Your task to perform on an android device: turn off improve location accuracy Image 0: 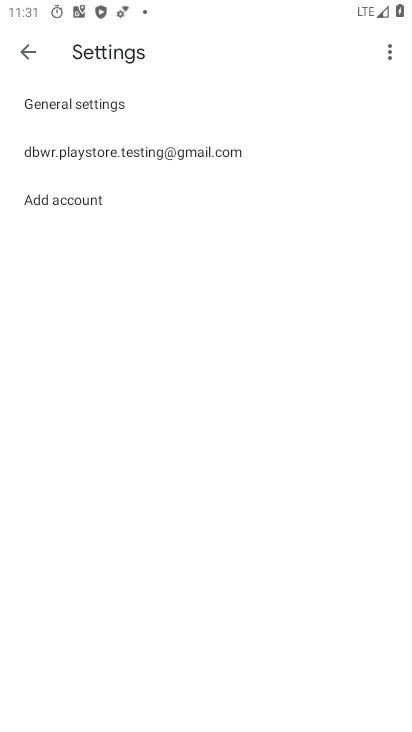
Step 0: press home button
Your task to perform on an android device: turn off improve location accuracy Image 1: 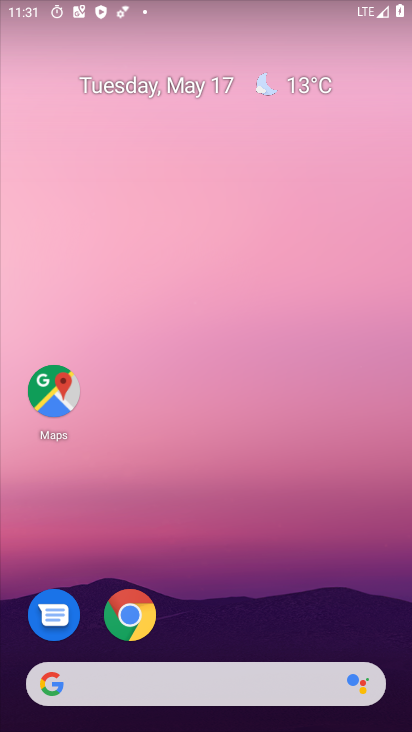
Step 1: drag from (148, 693) to (271, 131)
Your task to perform on an android device: turn off improve location accuracy Image 2: 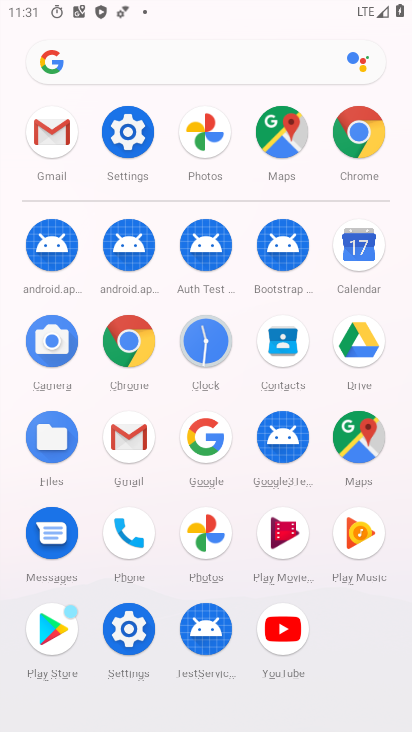
Step 2: click (124, 140)
Your task to perform on an android device: turn off improve location accuracy Image 3: 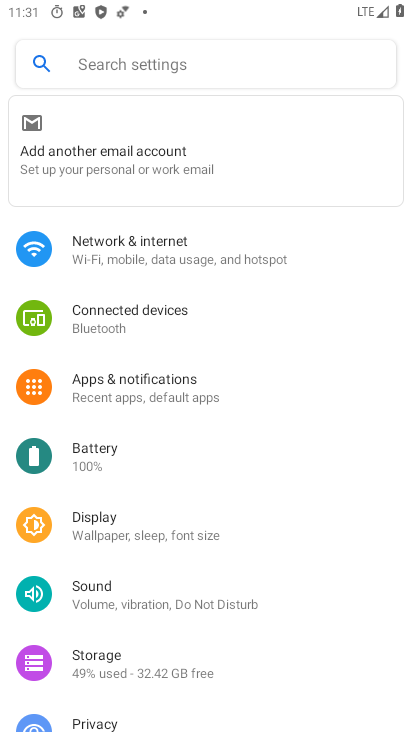
Step 3: drag from (276, 526) to (370, 196)
Your task to perform on an android device: turn off improve location accuracy Image 4: 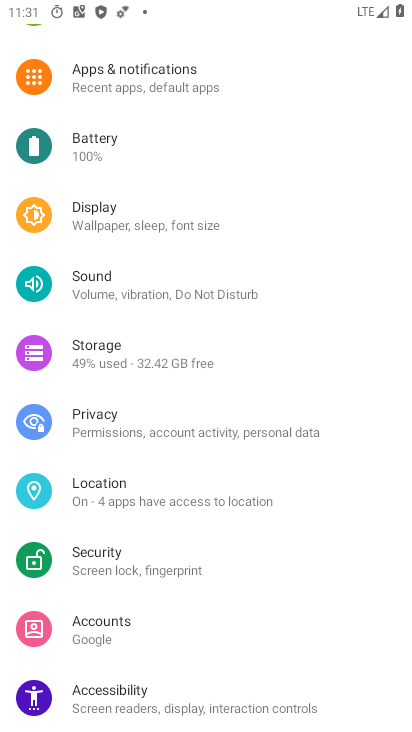
Step 4: click (127, 496)
Your task to perform on an android device: turn off improve location accuracy Image 5: 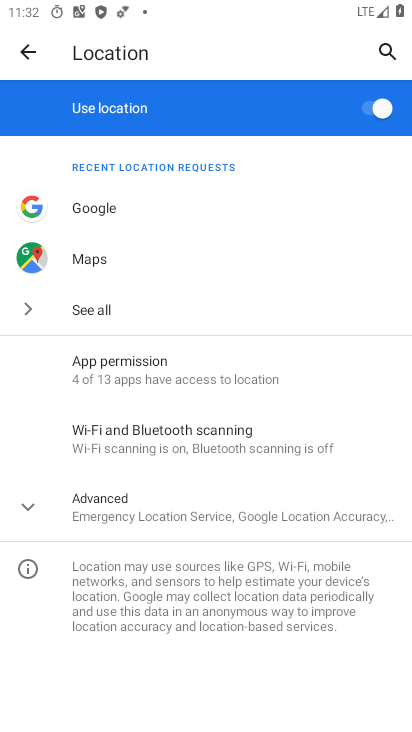
Step 5: click (126, 493)
Your task to perform on an android device: turn off improve location accuracy Image 6: 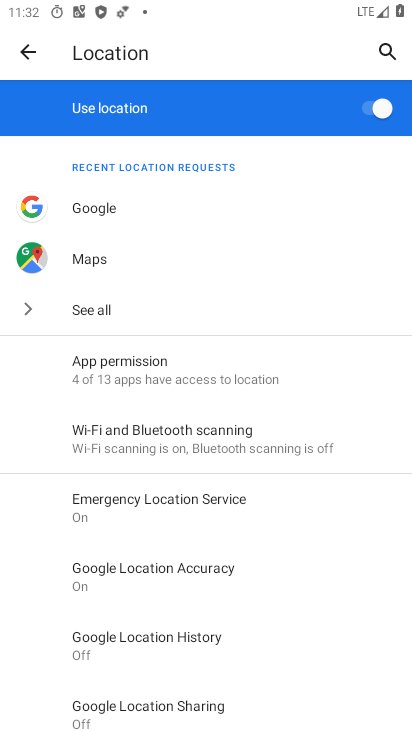
Step 6: click (192, 571)
Your task to perform on an android device: turn off improve location accuracy Image 7: 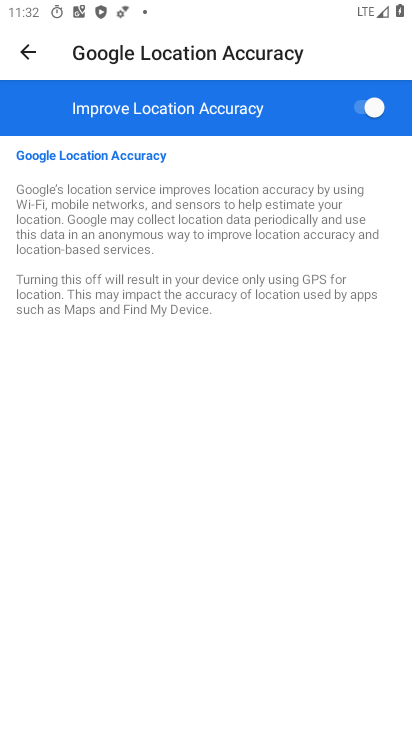
Step 7: click (360, 107)
Your task to perform on an android device: turn off improve location accuracy Image 8: 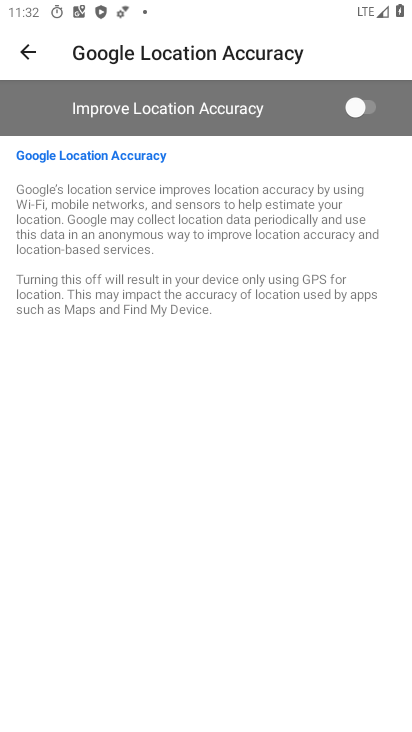
Step 8: task complete